Your task to perform on an android device: Go to network settings Image 0: 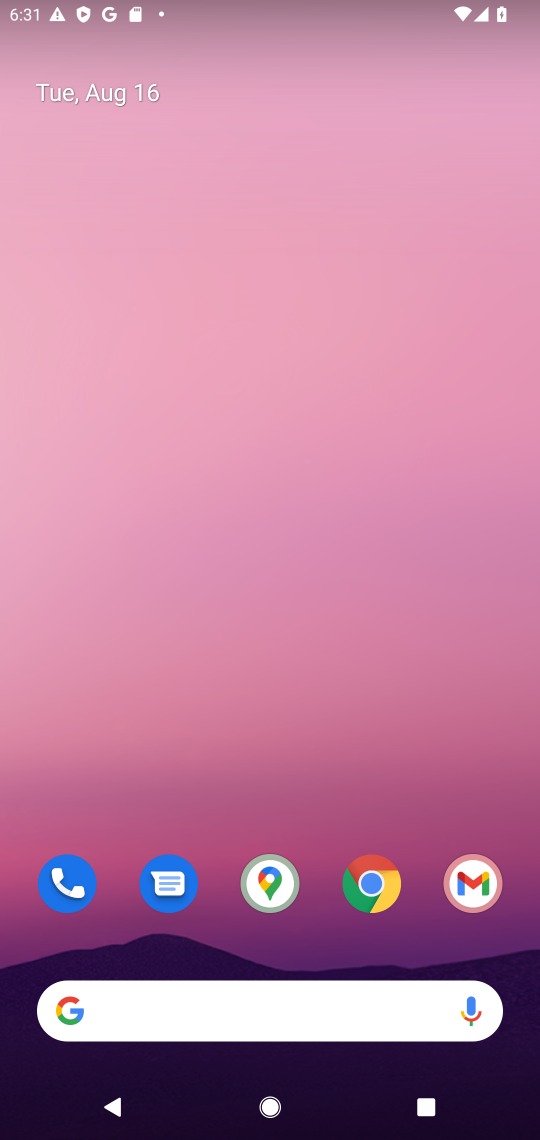
Step 0: drag from (207, 1013) to (58, 167)
Your task to perform on an android device: Go to network settings Image 1: 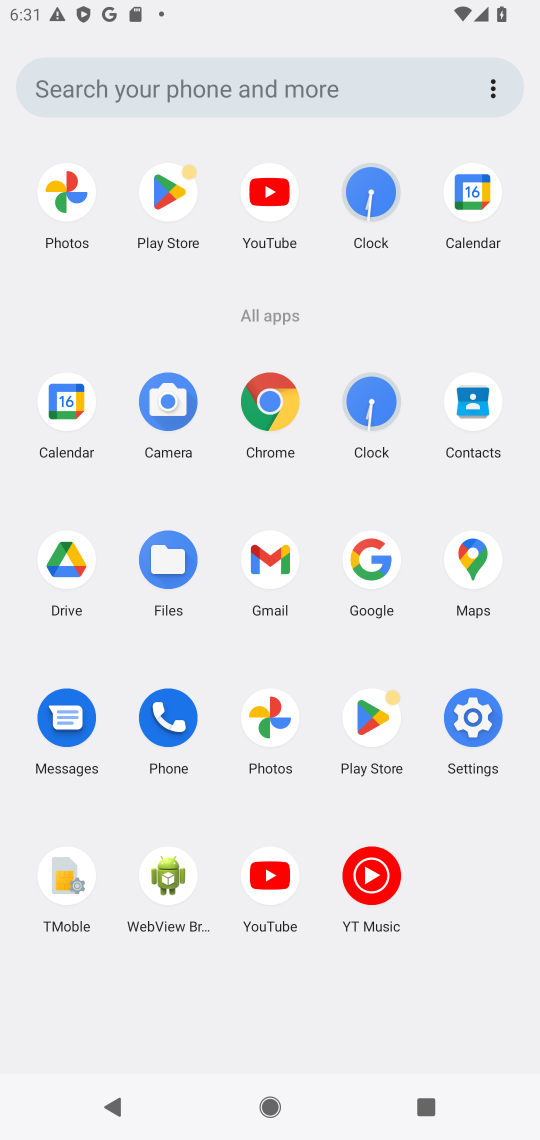
Step 1: click (472, 720)
Your task to perform on an android device: Go to network settings Image 2: 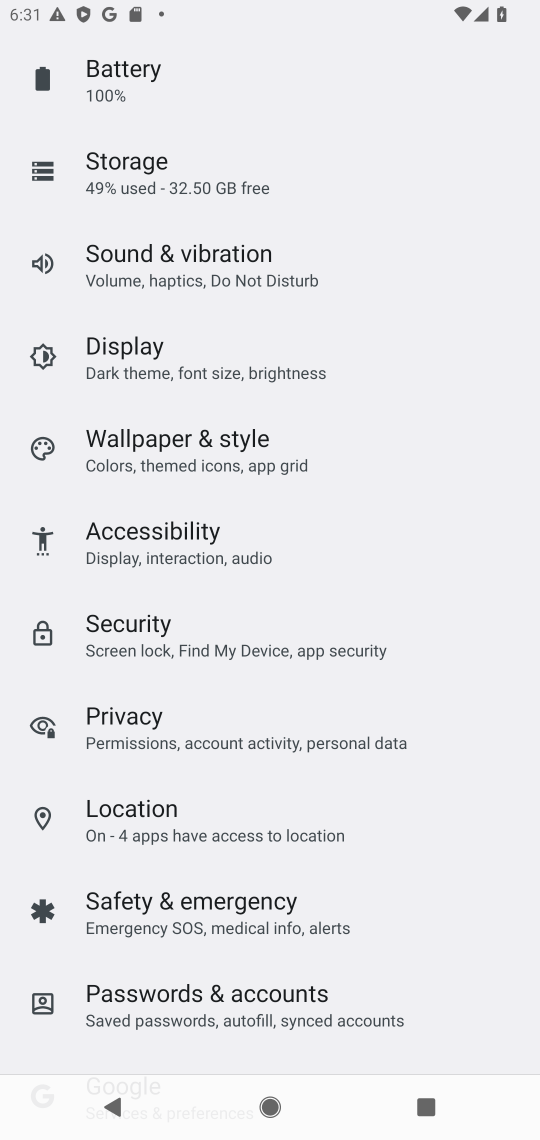
Step 2: drag from (236, 225) to (255, 513)
Your task to perform on an android device: Go to network settings Image 3: 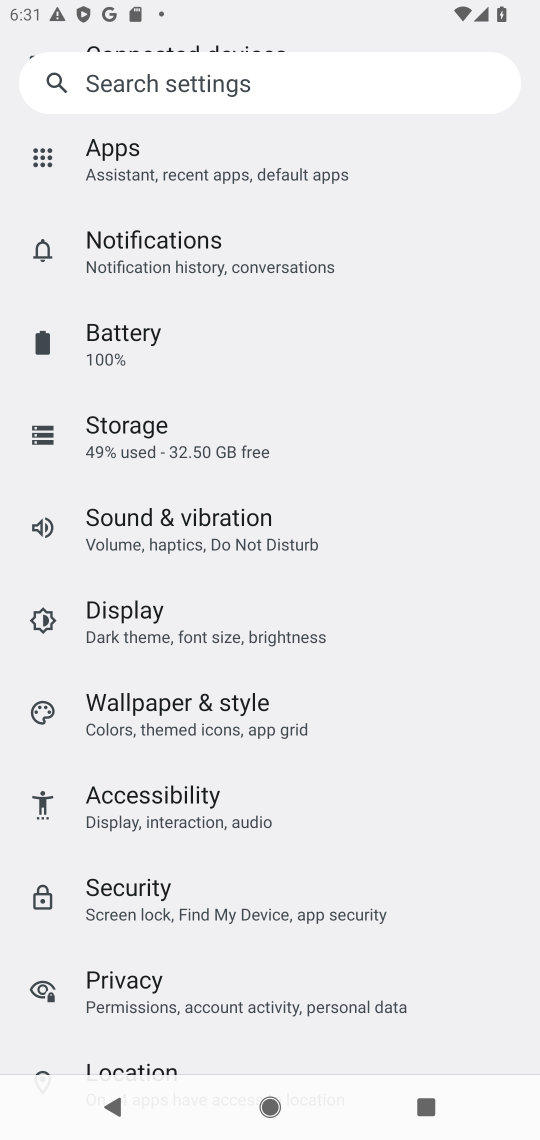
Step 3: drag from (167, 208) to (259, 563)
Your task to perform on an android device: Go to network settings Image 4: 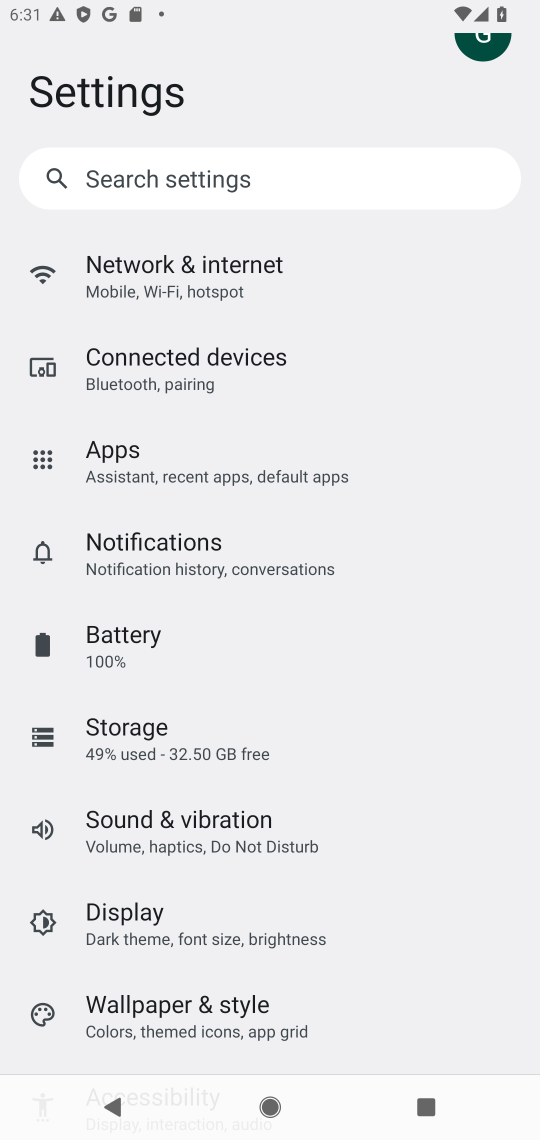
Step 4: click (200, 294)
Your task to perform on an android device: Go to network settings Image 5: 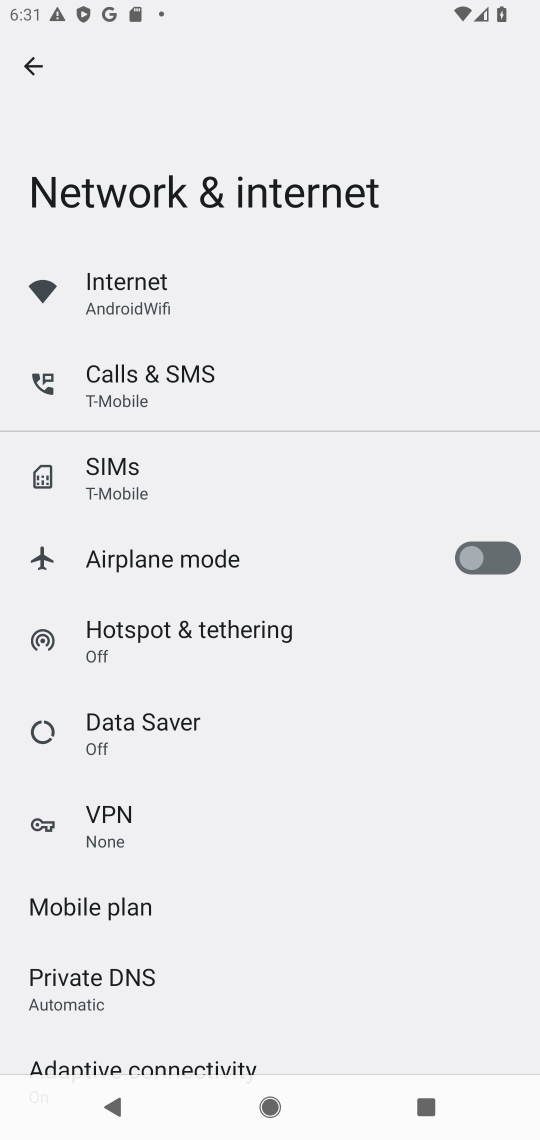
Step 5: task complete